Your task to perform on an android device: Toggle the flashlight Image 0: 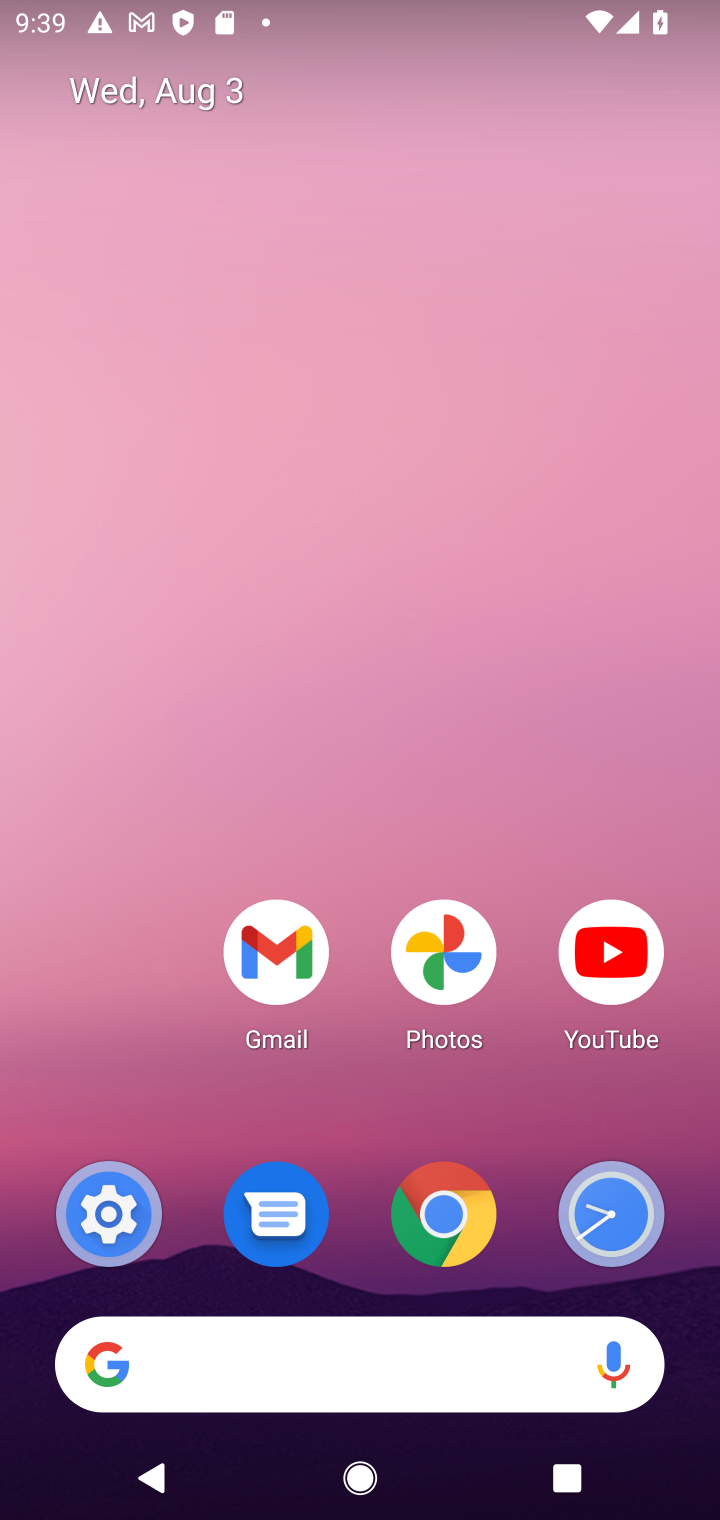
Step 0: drag from (320, 0) to (313, 923)
Your task to perform on an android device: Toggle the flashlight Image 1: 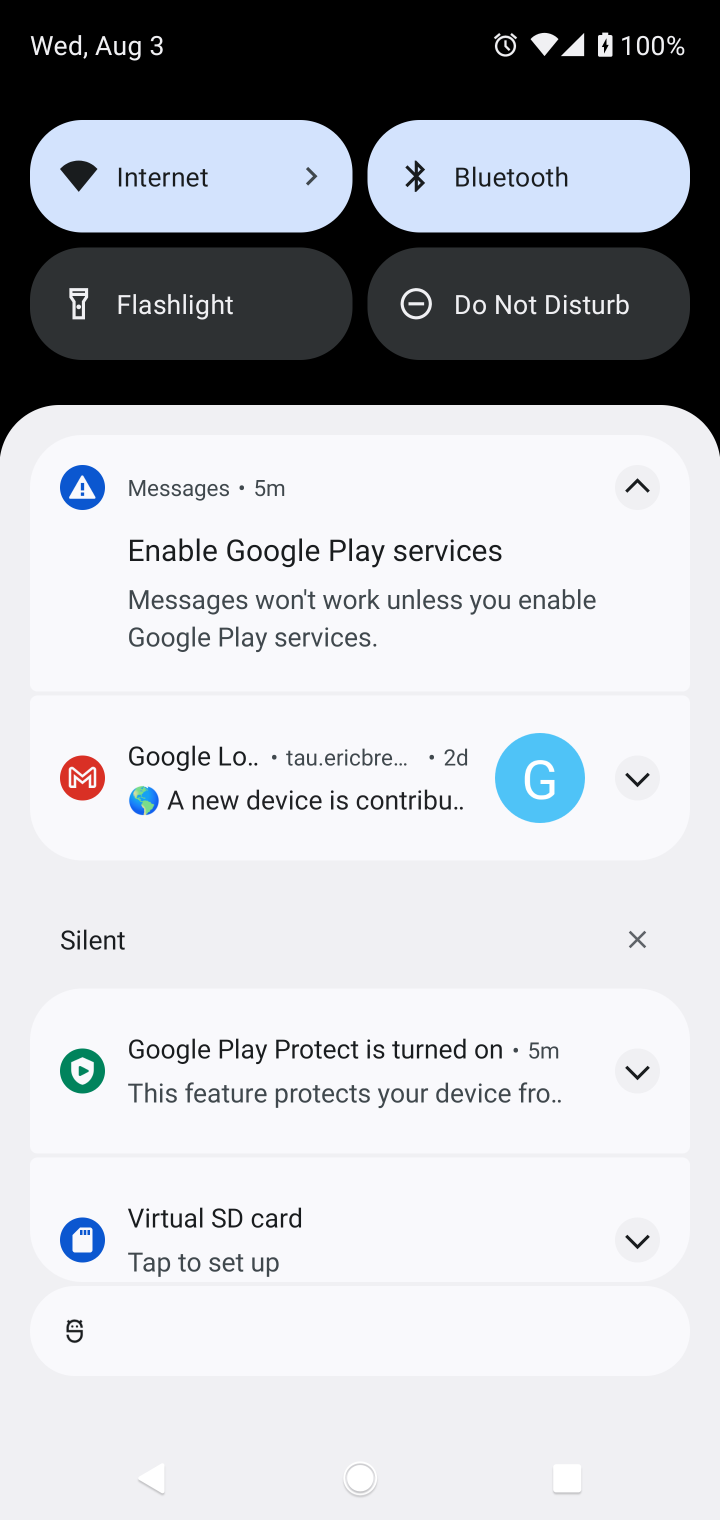
Step 1: click (245, 290)
Your task to perform on an android device: Toggle the flashlight Image 2: 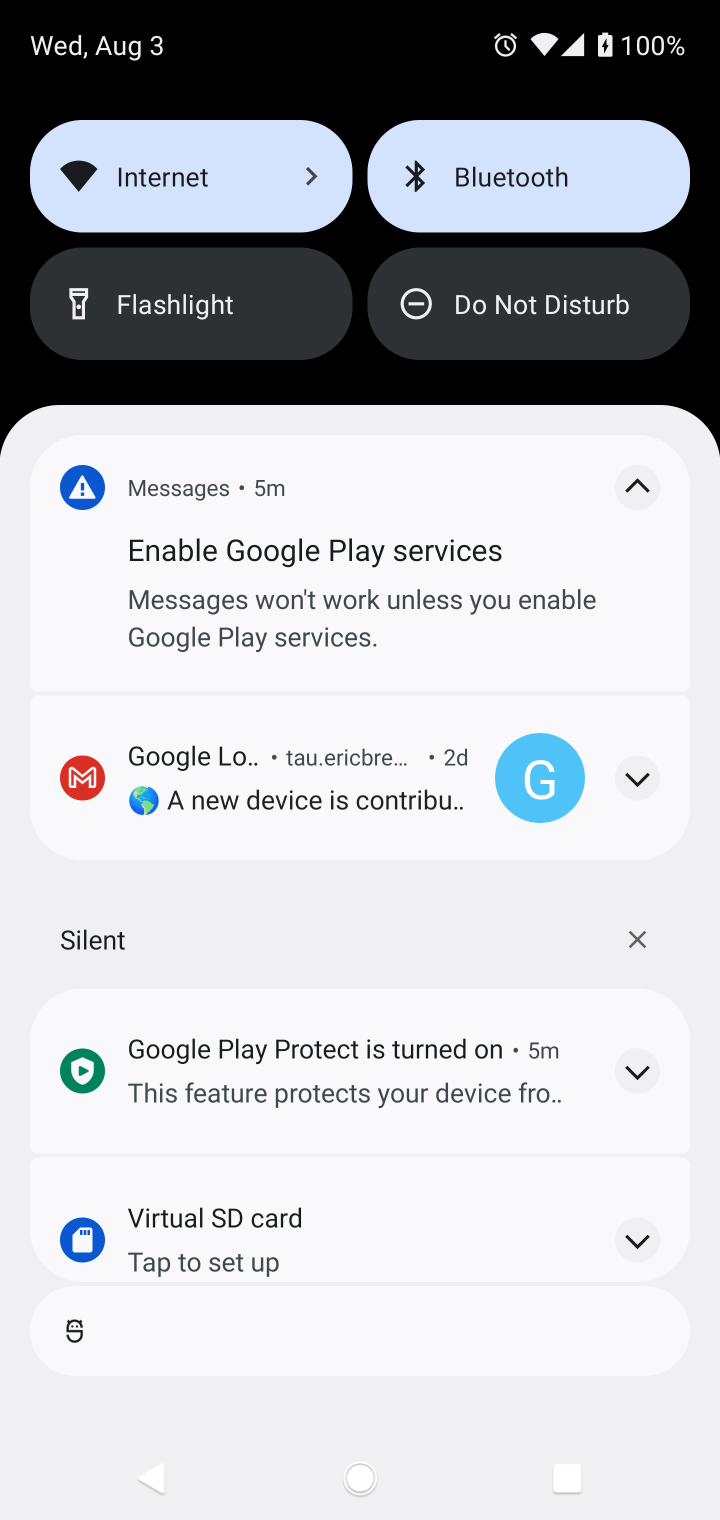
Step 2: click (223, 321)
Your task to perform on an android device: Toggle the flashlight Image 3: 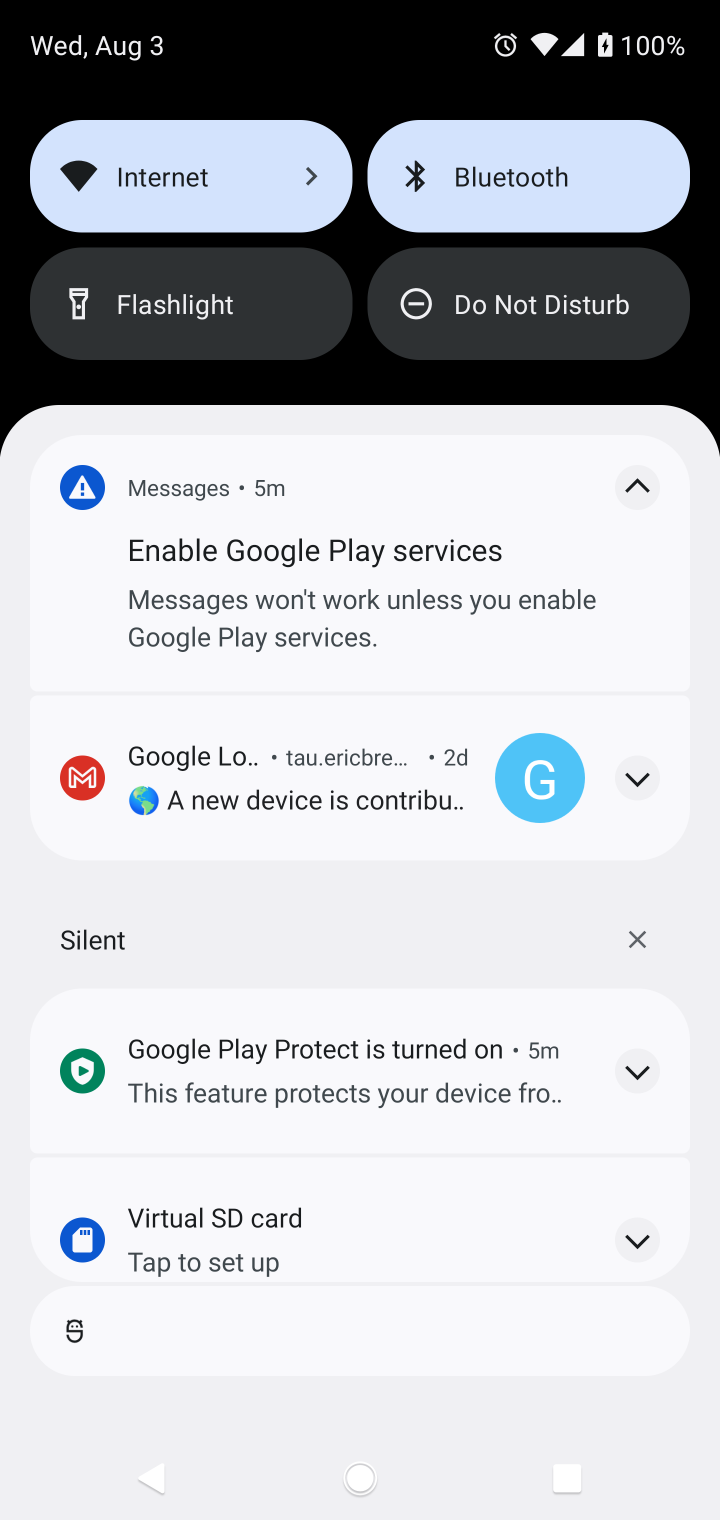
Step 3: task complete